Your task to perform on an android device: delete location history Image 0: 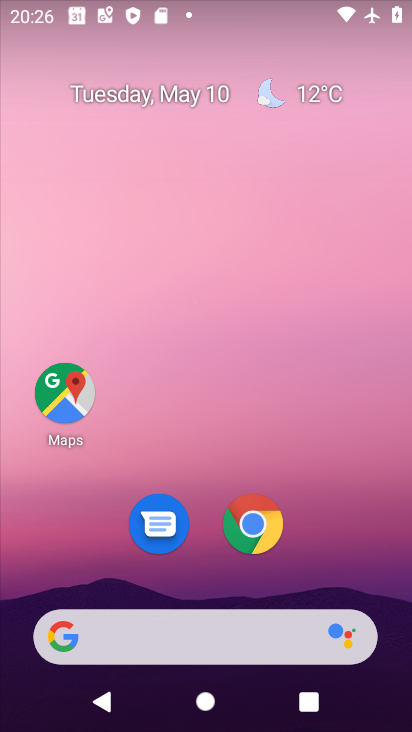
Step 0: click (62, 391)
Your task to perform on an android device: delete location history Image 1: 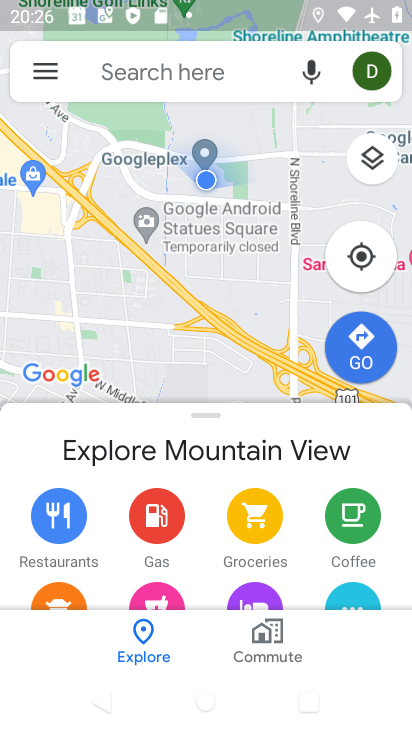
Step 1: click (42, 68)
Your task to perform on an android device: delete location history Image 2: 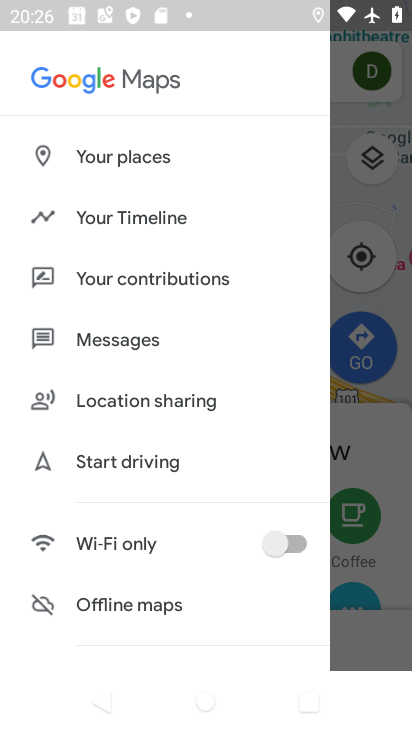
Step 2: click (125, 213)
Your task to perform on an android device: delete location history Image 3: 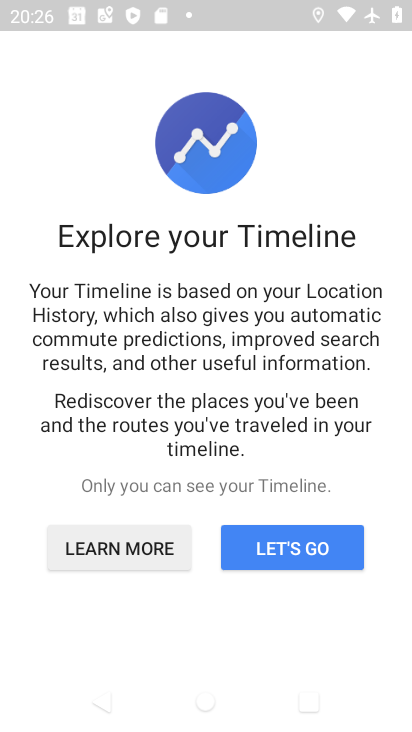
Step 3: drag from (218, 426) to (218, 260)
Your task to perform on an android device: delete location history Image 4: 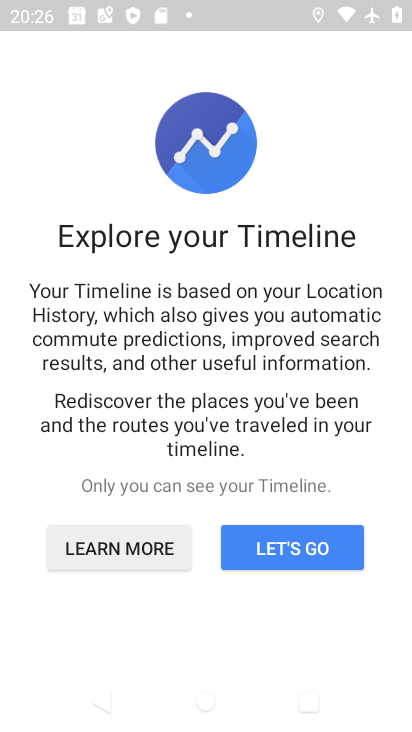
Step 4: drag from (194, 443) to (189, 270)
Your task to perform on an android device: delete location history Image 5: 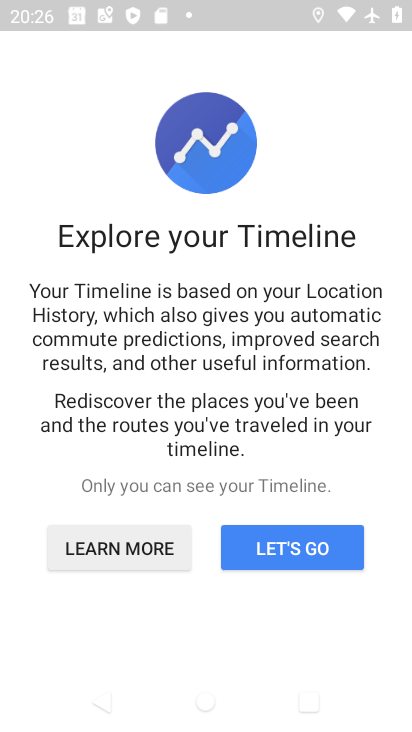
Step 5: click (248, 545)
Your task to perform on an android device: delete location history Image 6: 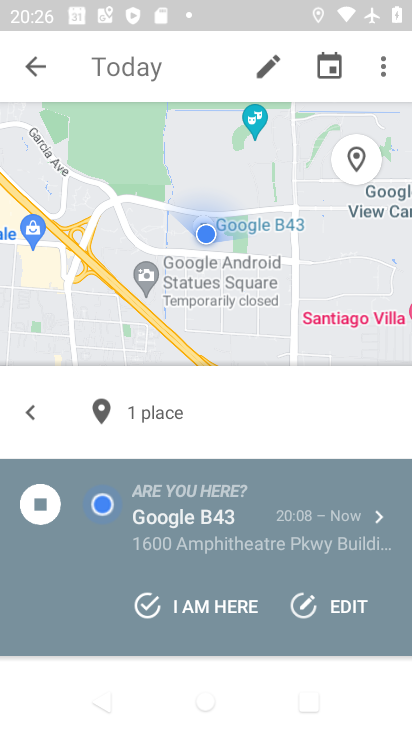
Step 6: click (374, 61)
Your task to perform on an android device: delete location history Image 7: 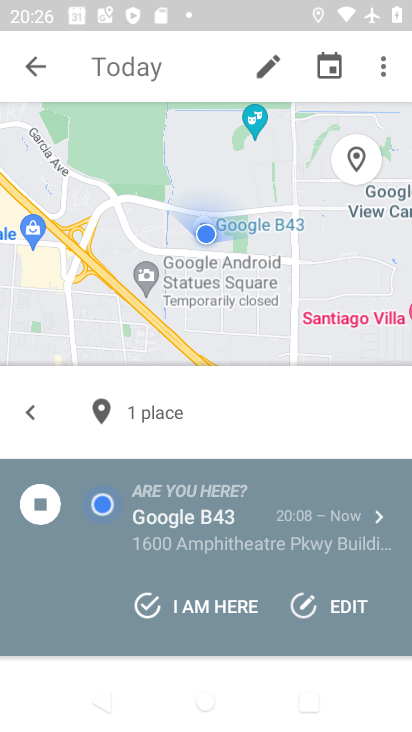
Step 7: click (379, 61)
Your task to perform on an android device: delete location history Image 8: 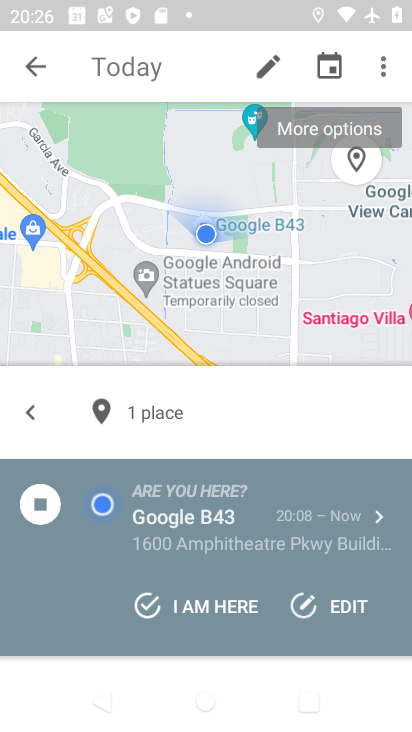
Step 8: click (379, 65)
Your task to perform on an android device: delete location history Image 9: 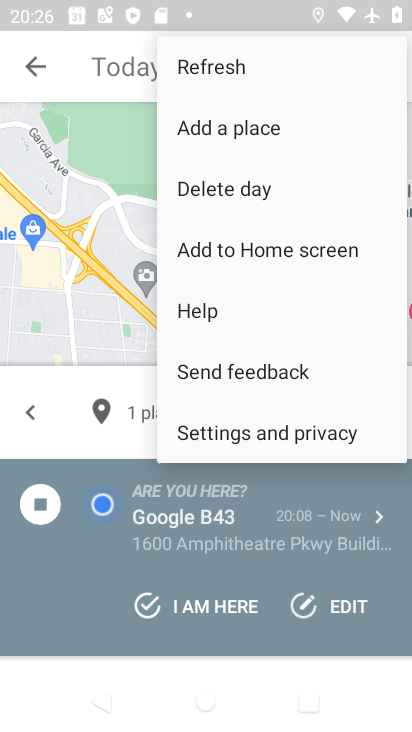
Step 9: click (322, 421)
Your task to perform on an android device: delete location history Image 10: 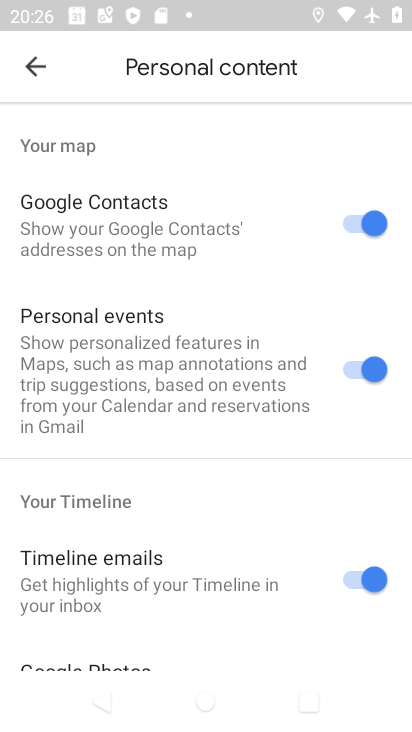
Step 10: drag from (238, 527) to (248, 120)
Your task to perform on an android device: delete location history Image 11: 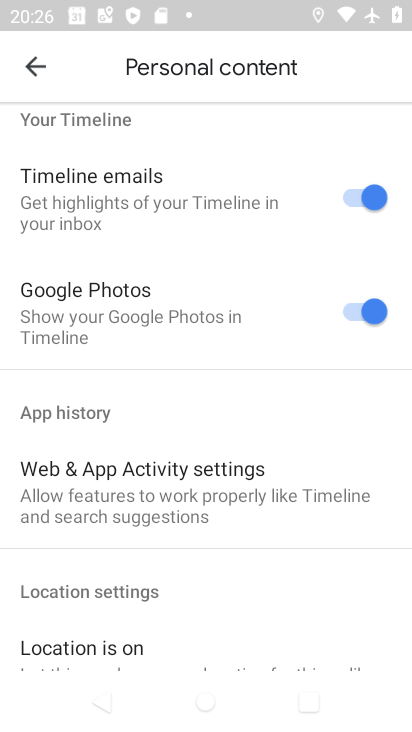
Step 11: drag from (204, 564) to (232, 137)
Your task to perform on an android device: delete location history Image 12: 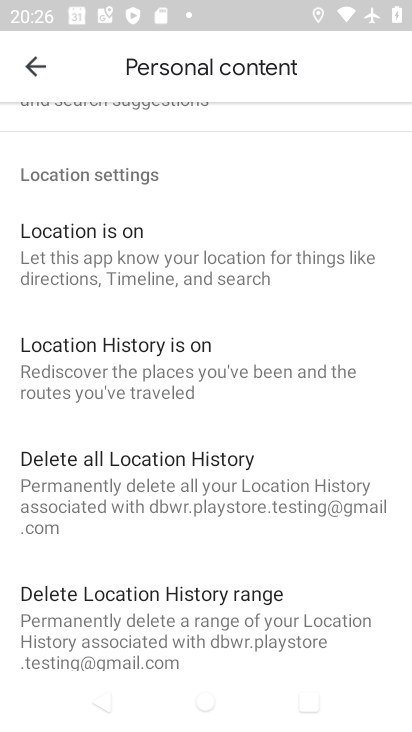
Step 12: click (156, 478)
Your task to perform on an android device: delete location history Image 13: 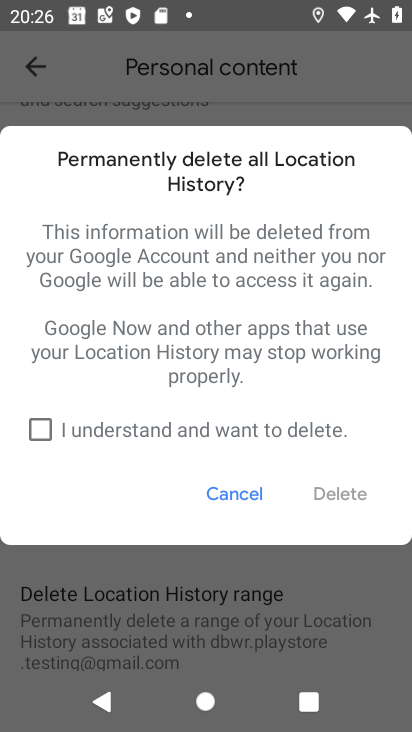
Step 13: click (38, 428)
Your task to perform on an android device: delete location history Image 14: 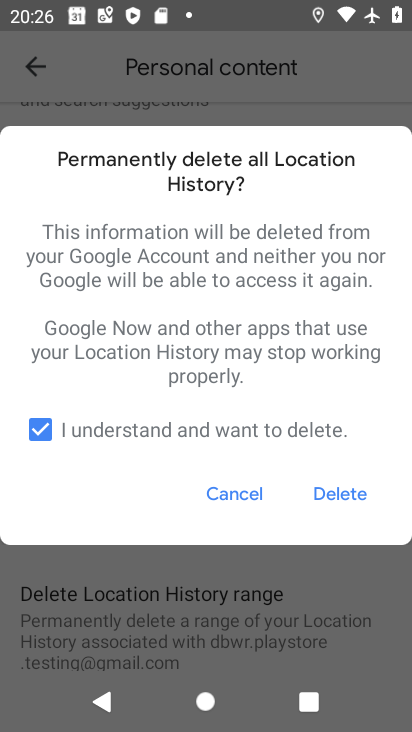
Step 14: click (340, 486)
Your task to perform on an android device: delete location history Image 15: 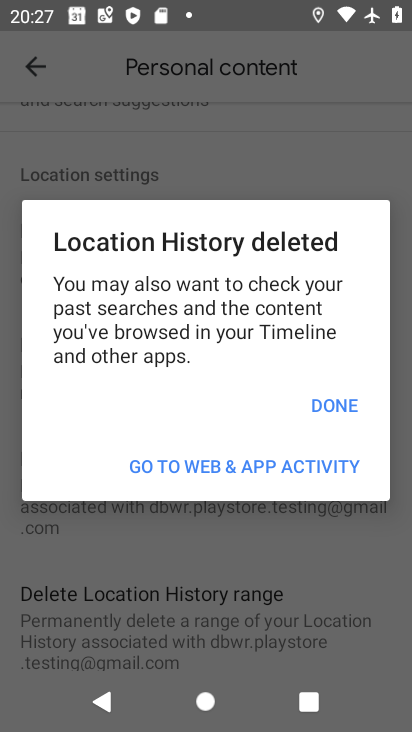
Step 15: click (336, 401)
Your task to perform on an android device: delete location history Image 16: 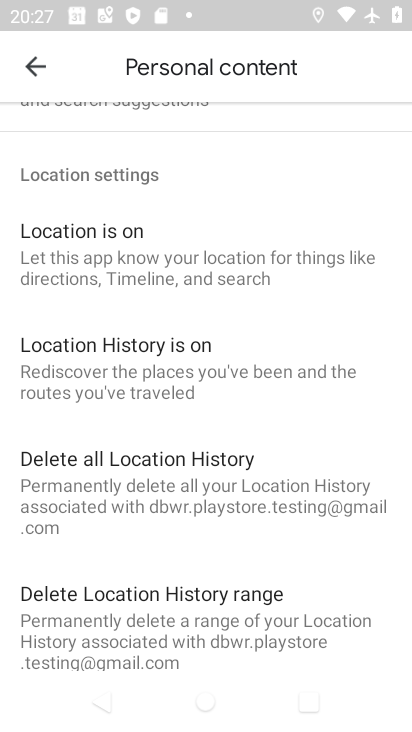
Step 16: task complete